Your task to perform on an android device: turn off location Image 0: 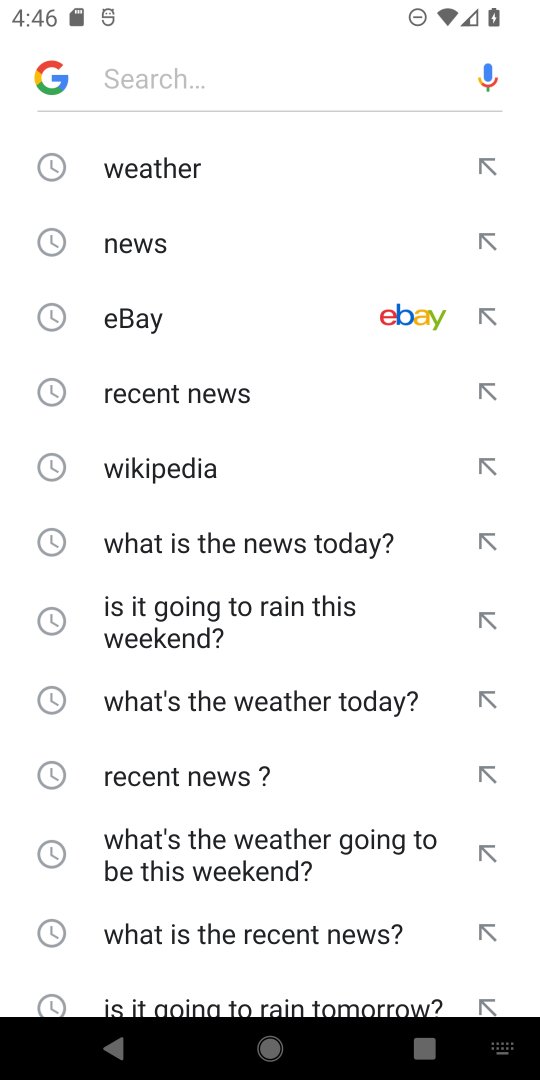
Step 0: press home button
Your task to perform on an android device: turn off location Image 1: 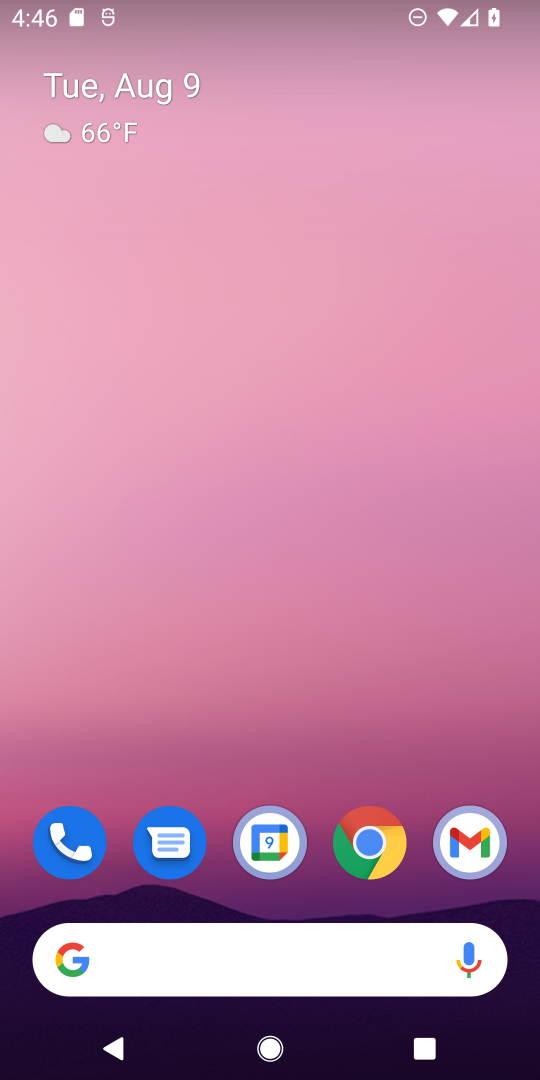
Step 1: drag from (328, 952) to (306, 122)
Your task to perform on an android device: turn off location Image 2: 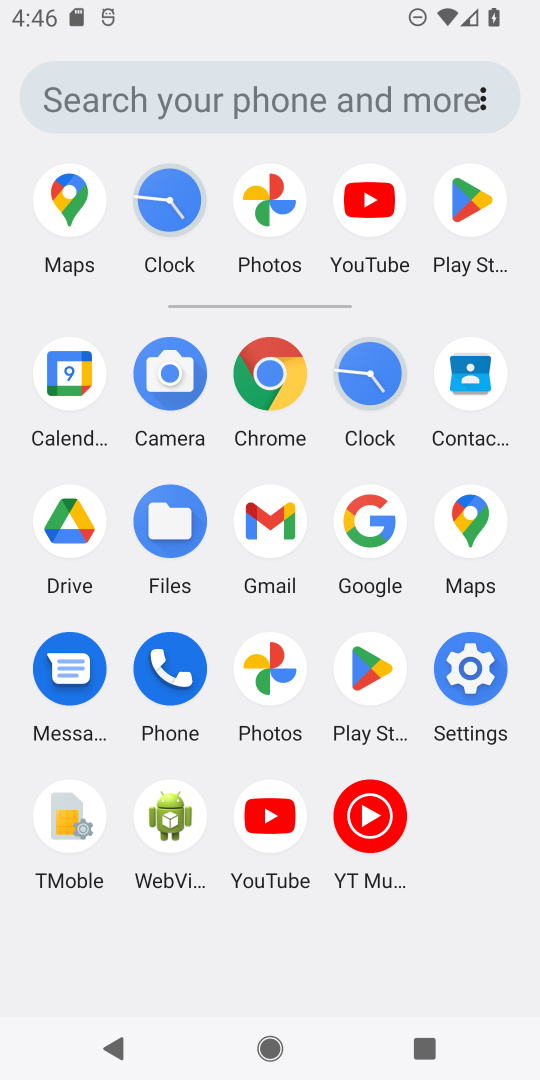
Step 2: click (466, 661)
Your task to perform on an android device: turn off location Image 3: 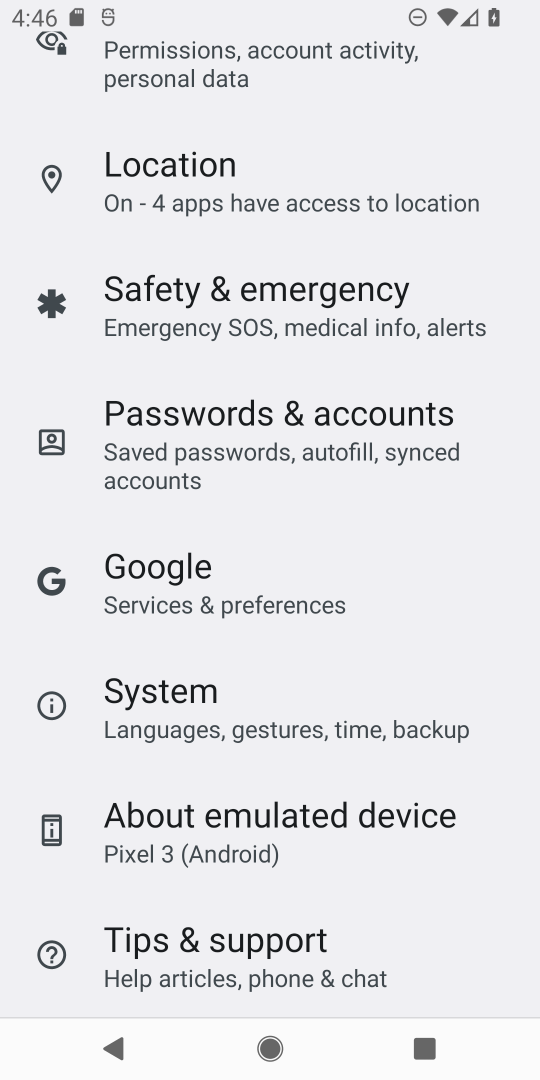
Step 3: click (314, 202)
Your task to perform on an android device: turn off location Image 4: 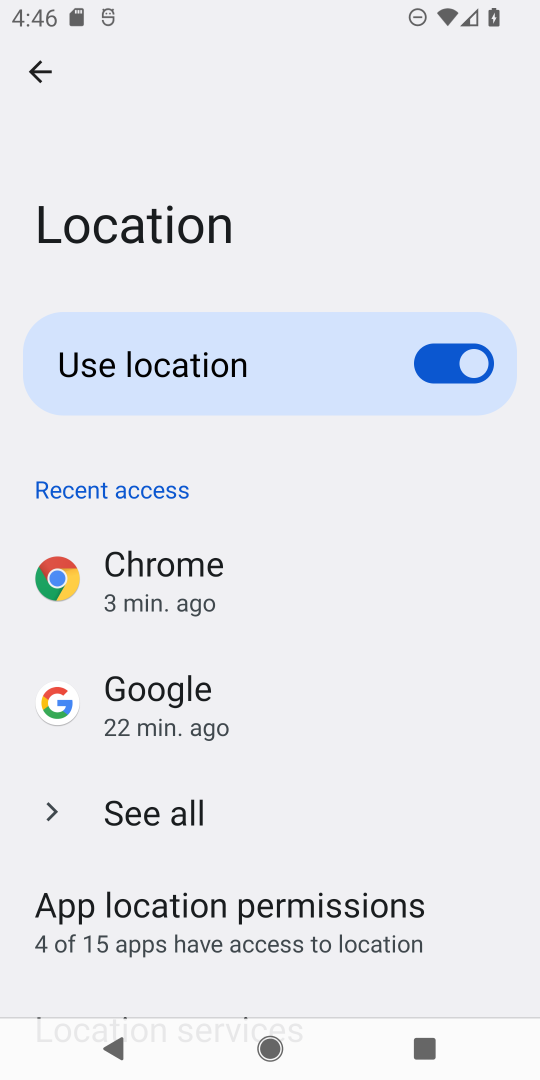
Step 4: click (447, 365)
Your task to perform on an android device: turn off location Image 5: 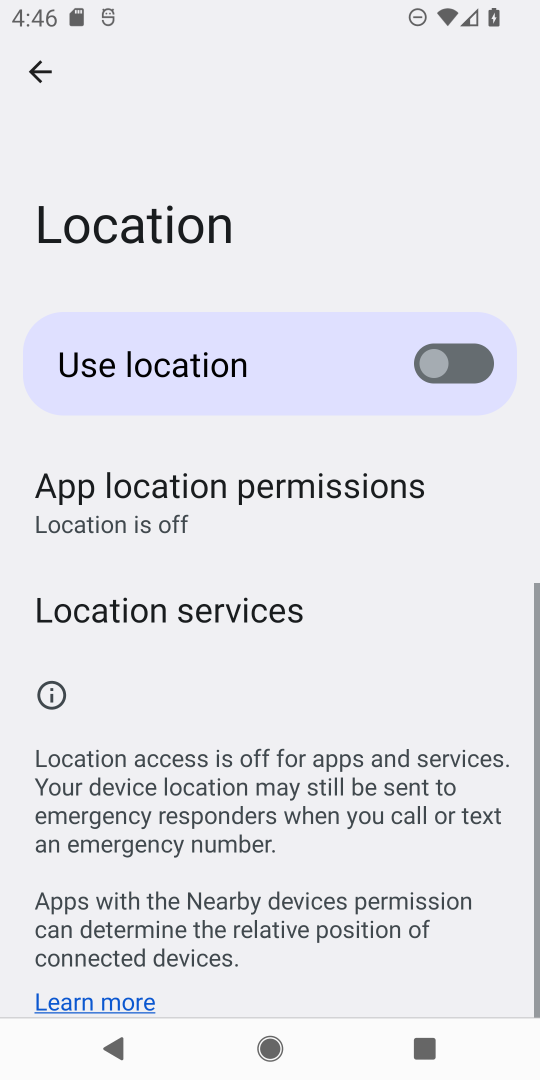
Step 5: task complete